Your task to perform on an android device: Turn off the flashlight Image 0: 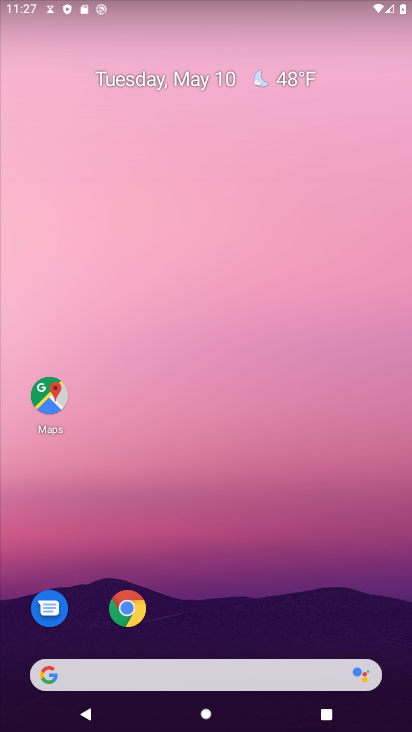
Step 0: drag from (272, 595) to (242, 280)
Your task to perform on an android device: Turn off the flashlight Image 1: 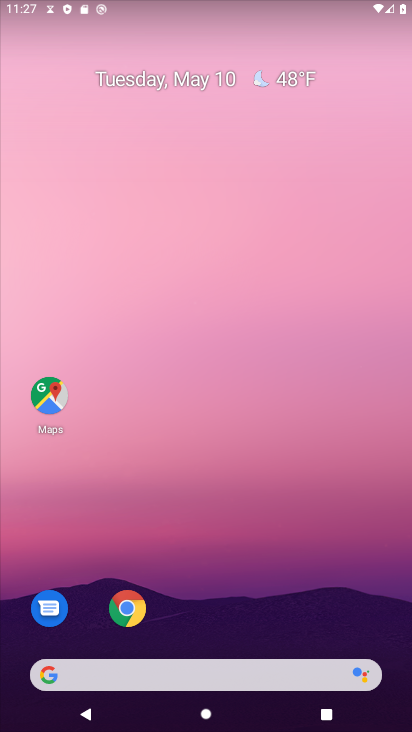
Step 1: drag from (230, 585) to (276, 115)
Your task to perform on an android device: Turn off the flashlight Image 2: 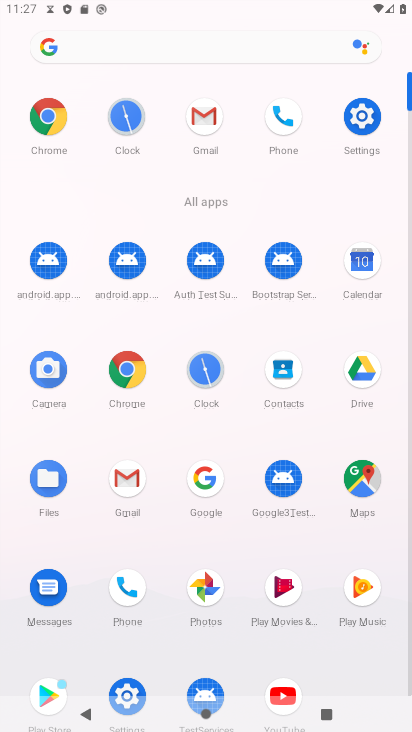
Step 2: click (368, 122)
Your task to perform on an android device: Turn off the flashlight Image 3: 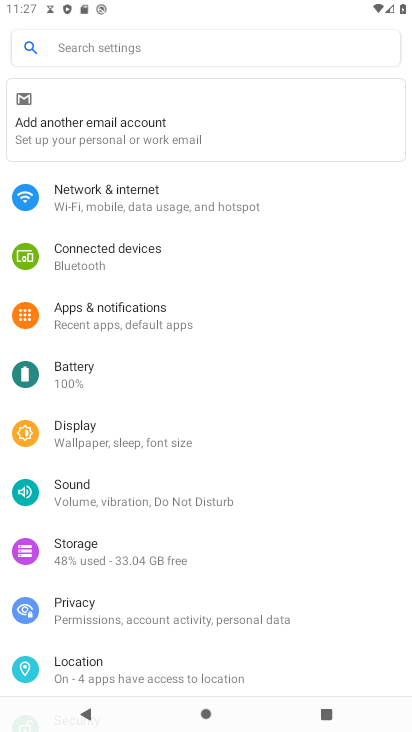
Step 3: click (224, 55)
Your task to perform on an android device: Turn off the flashlight Image 4: 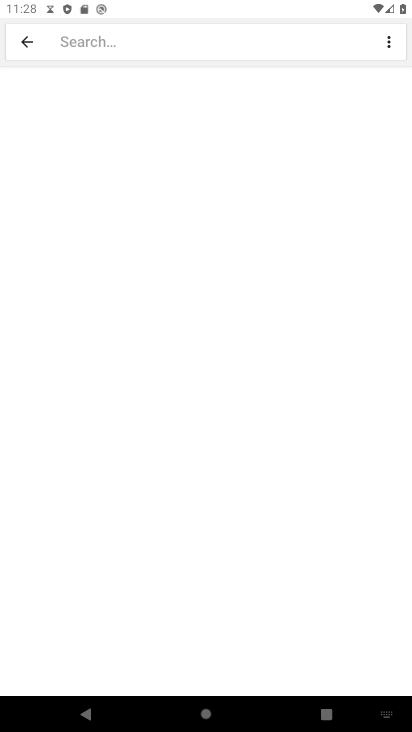
Step 4: type "flashlight"
Your task to perform on an android device: Turn off the flashlight Image 5: 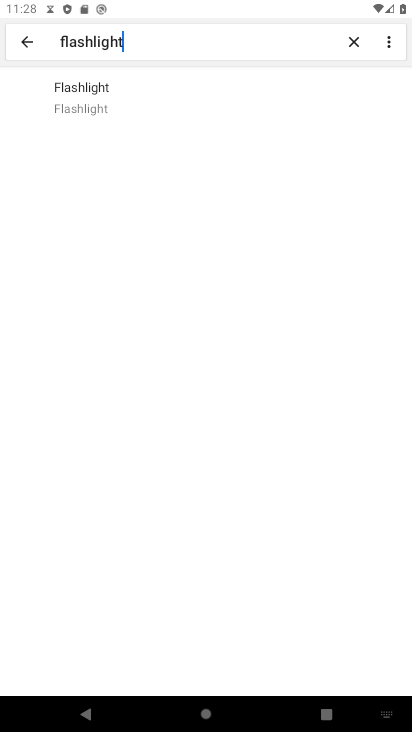
Step 5: click (168, 94)
Your task to perform on an android device: Turn off the flashlight Image 6: 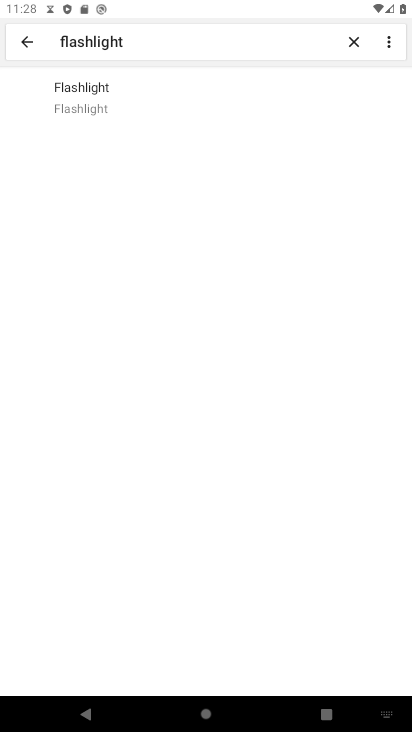
Step 6: click (90, 101)
Your task to perform on an android device: Turn off the flashlight Image 7: 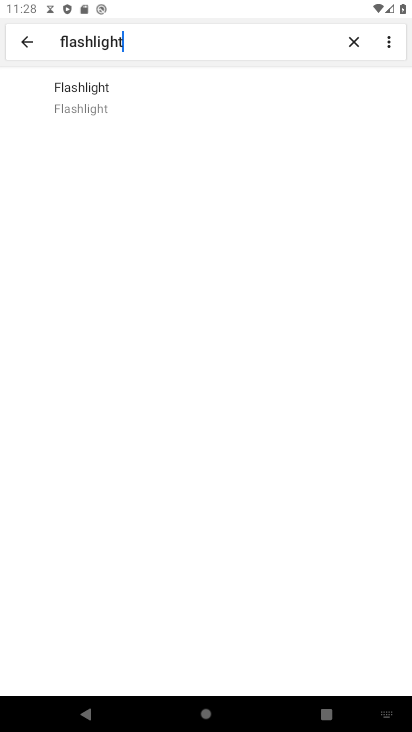
Step 7: task complete